Your task to perform on an android device: turn off airplane mode Image 0: 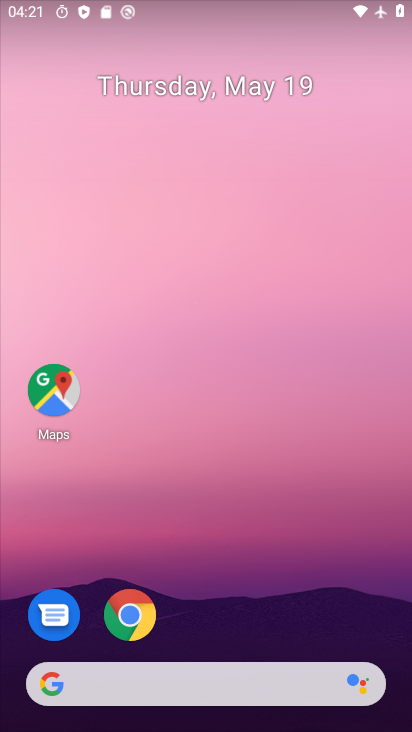
Step 0: drag from (274, 649) to (363, 24)
Your task to perform on an android device: turn off airplane mode Image 1: 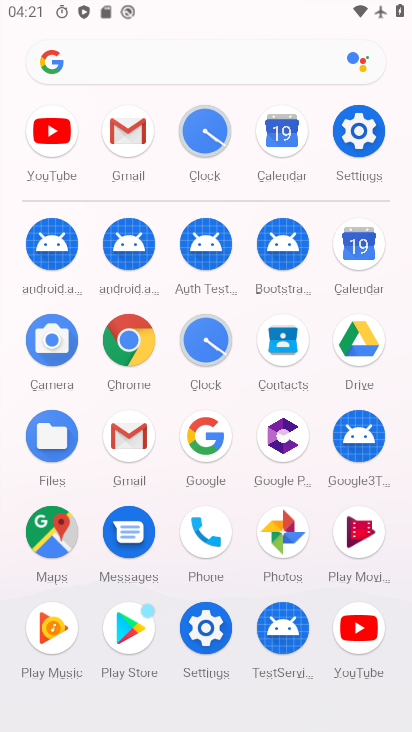
Step 1: click (363, 136)
Your task to perform on an android device: turn off airplane mode Image 2: 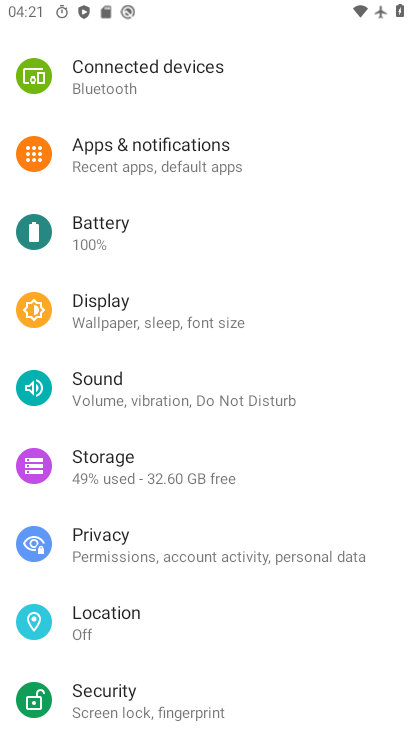
Step 2: drag from (295, 151) to (278, 566)
Your task to perform on an android device: turn off airplane mode Image 3: 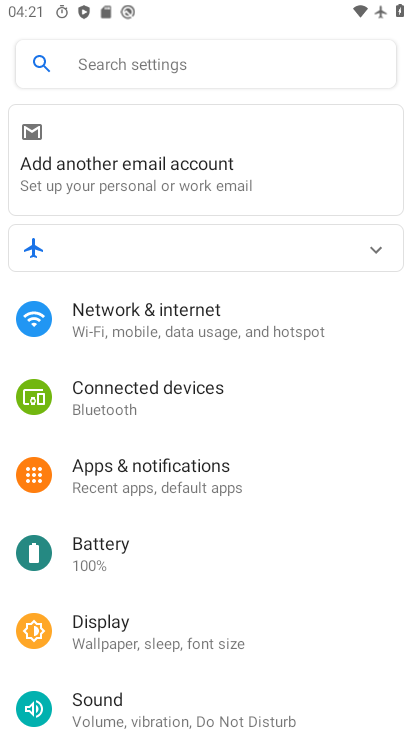
Step 3: click (144, 323)
Your task to perform on an android device: turn off airplane mode Image 4: 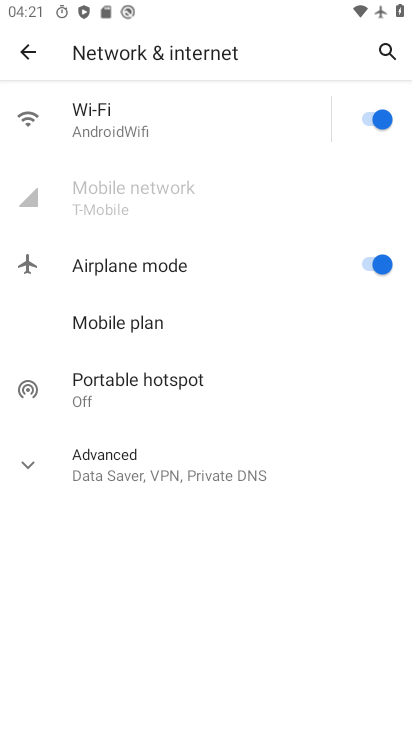
Step 4: click (383, 269)
Your task to perform on an android device: turn off airplane mode Image 5: 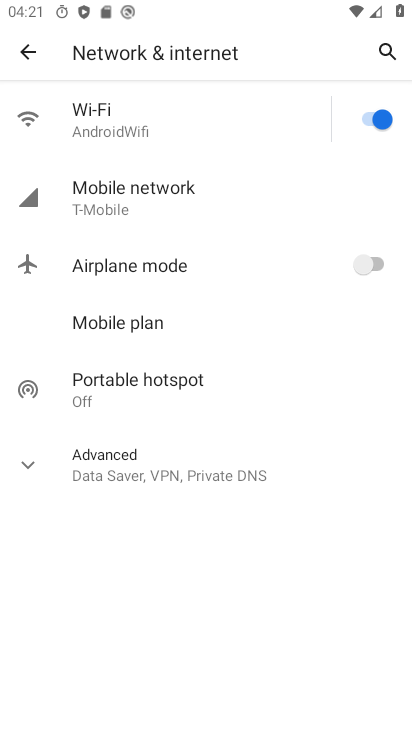
Step 5: task complete